Your task to perform on an android device: Open battery settings Image 0: 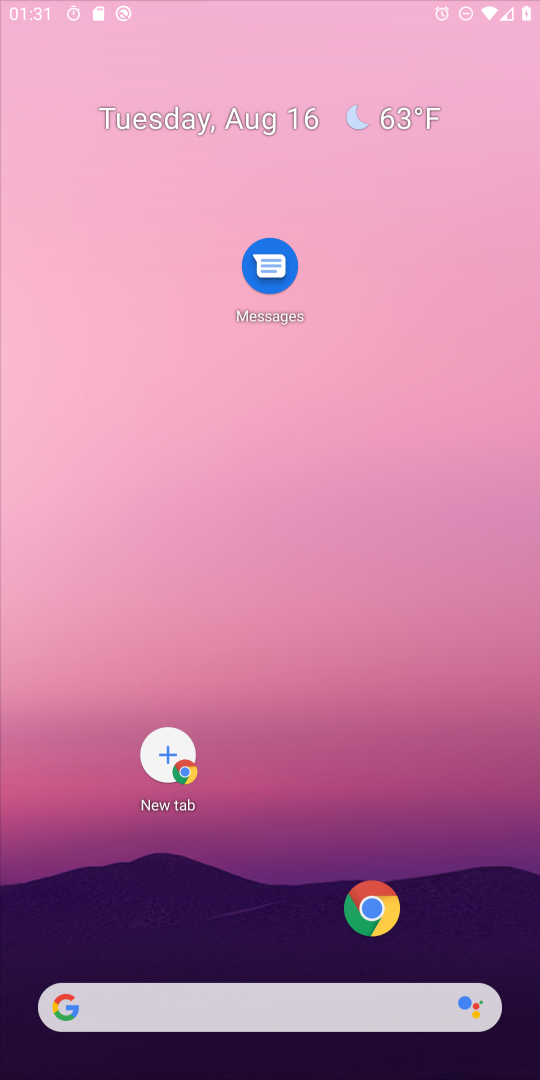
Step 0: press home button
Your task to perform on an android device: Open battery settings Image 1: 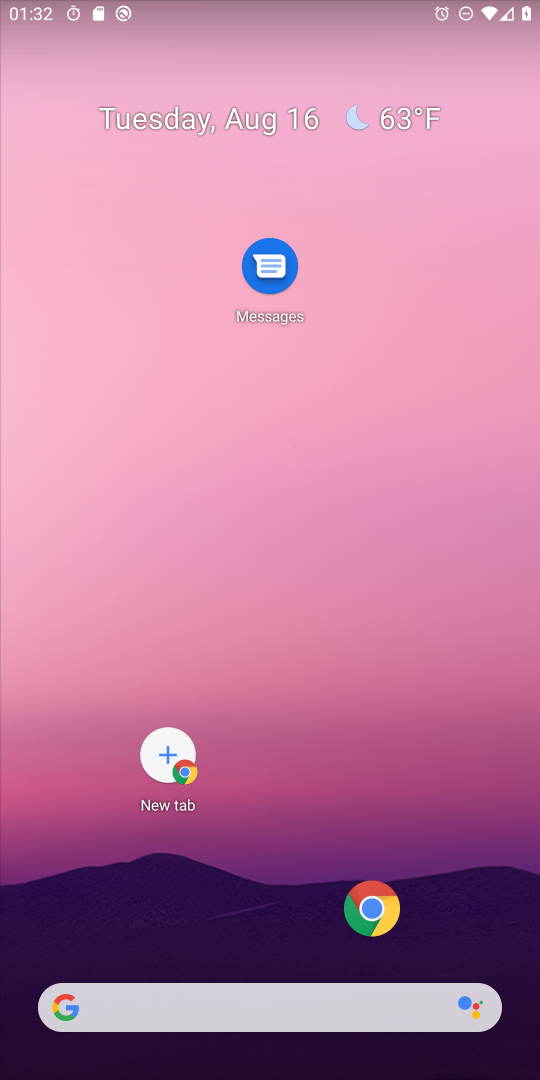
Step 1: drag from (349, 15) to (355, 785)
Your task to perform on an android device: Open battery settings Image 2: 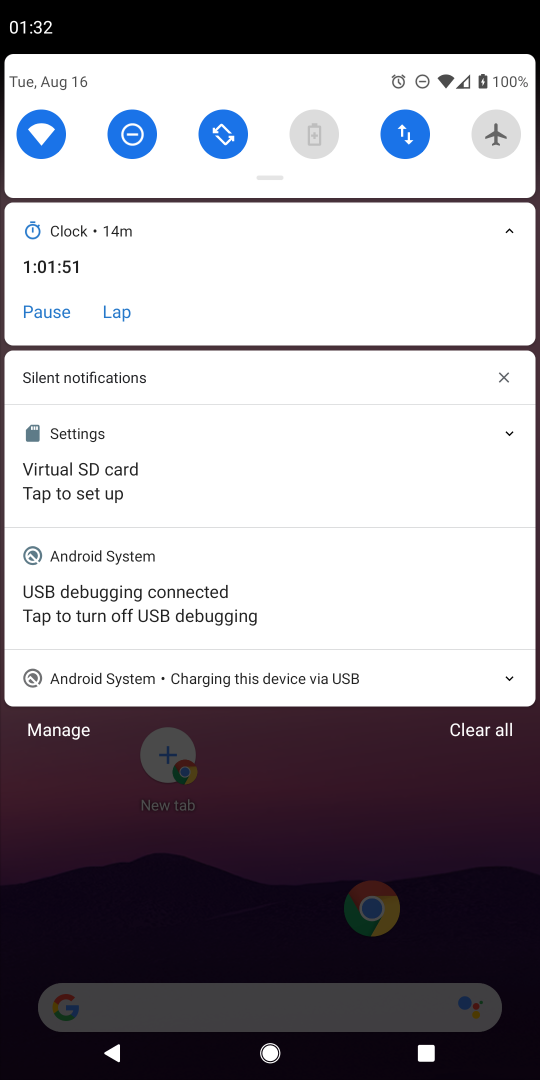
Step 2: click (326, 133)
Your task to perform on an android device: Open battery settings Image 3: 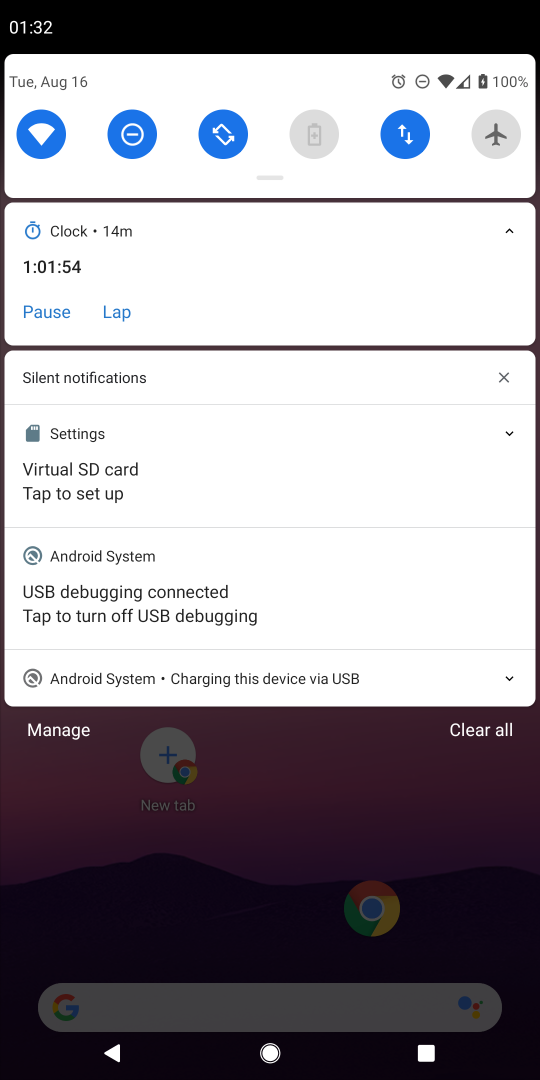
Step 3: click (326, 133)
Your task to perform on an android device: Open battery settings Image 4: 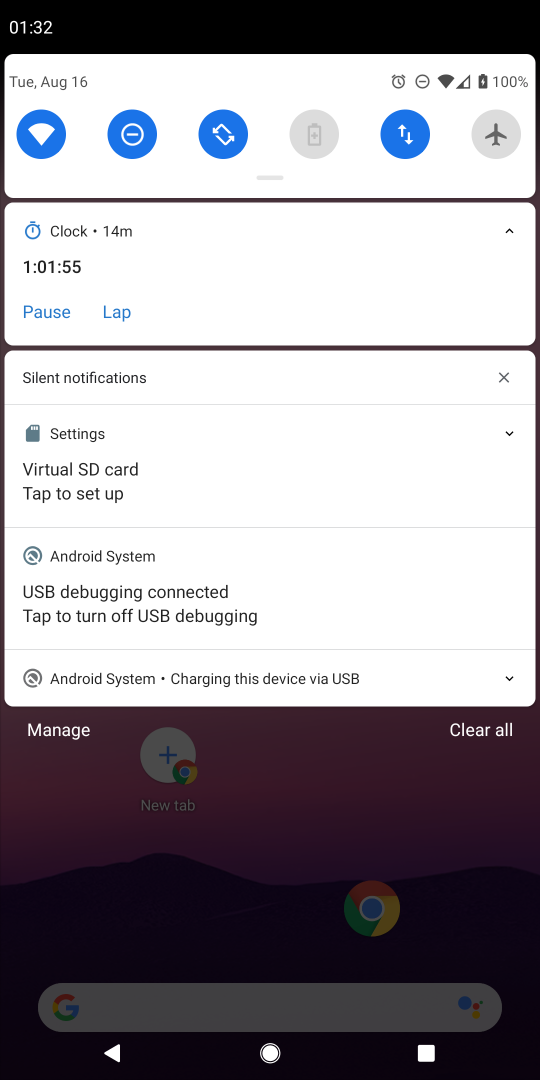
Step 4: click (326, 133)
Your task to perform on an android device: Open battery settings Image 5: 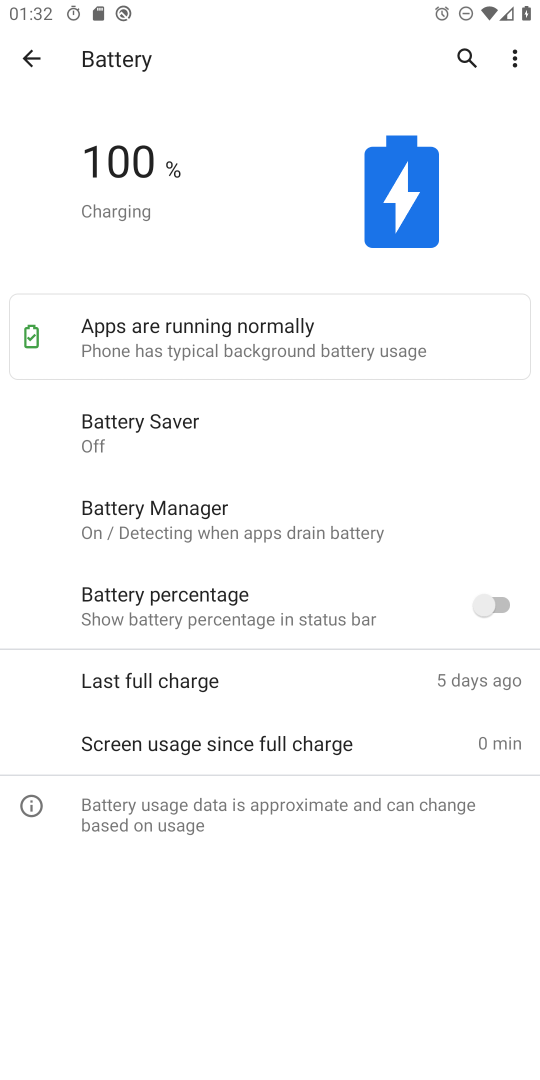
Step 5: task complete